Your task to perform on an android device: Go to eBay Image 0: 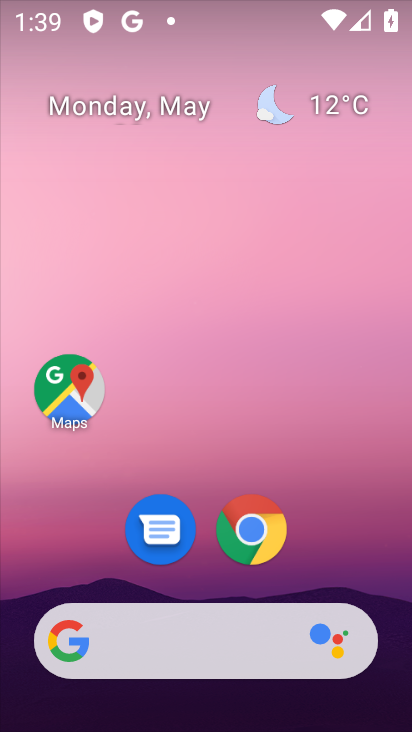
Step 0: click (251, 532)
Your task to perform on an android device: Go to eBay Image 1: 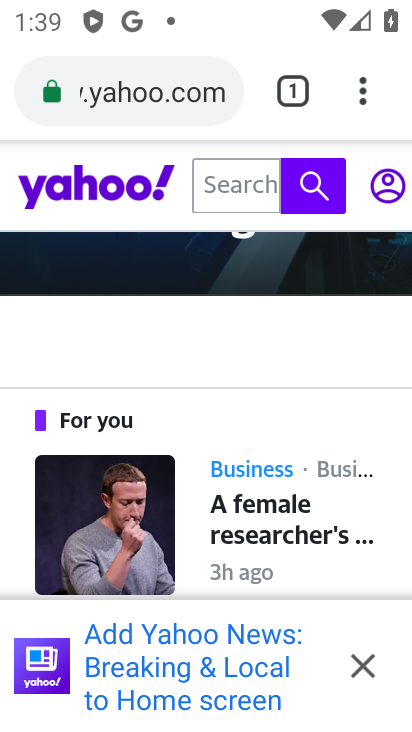
Step 1: click (228, 86)
Your task to perform on an android device: Go to eBay Image 2: 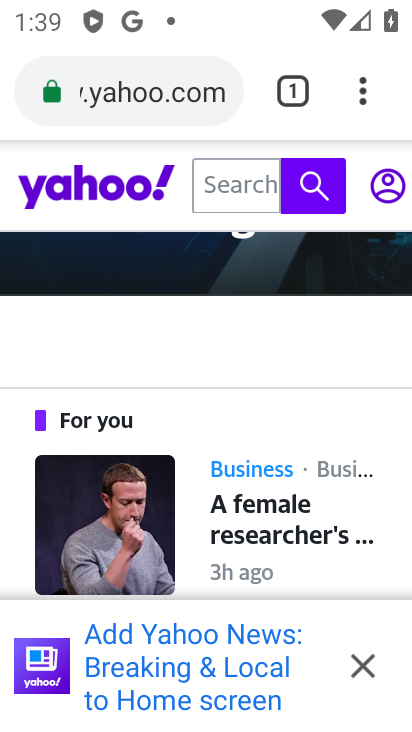
Step 2: click (228, 88)
Your task to perform on an android device: Go to eBay Image 3: 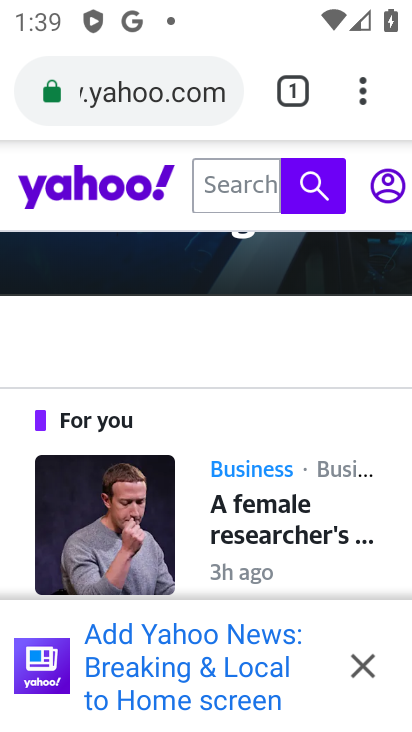
Step 3: click (217, 68)
Your task to perform on an android device: Go to eBay Image 4: 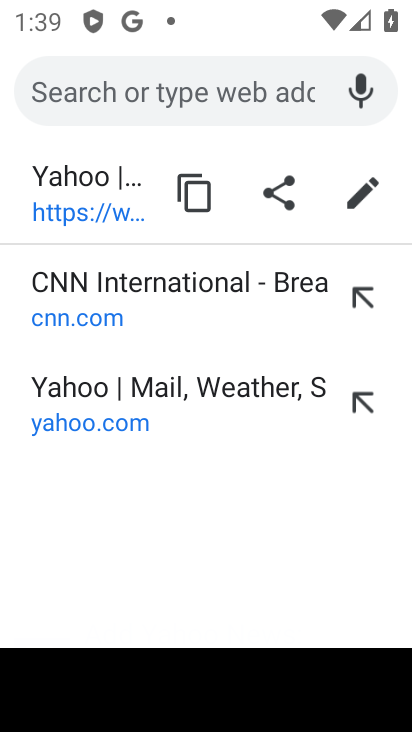
Step 4: type "ebay"
Your task to perform on an android device: Go to eBay Image 5: 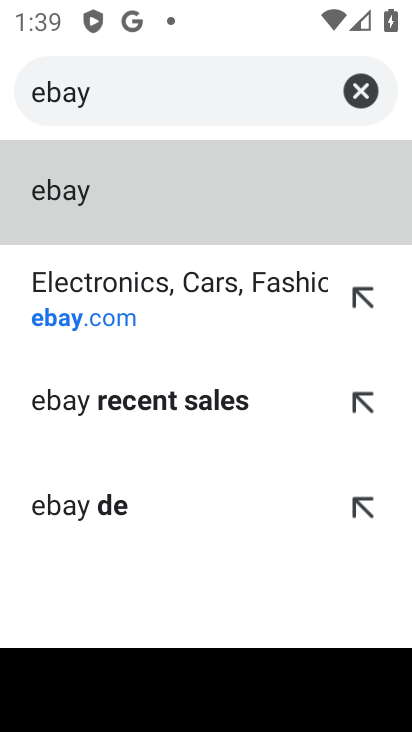
Step 5: click (67, 203)
Your task to perform on an android device: Go to eBay Image 6: 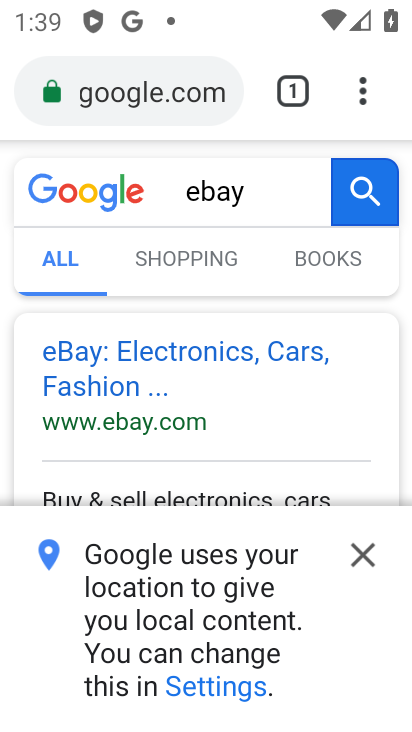
Step 6: click (83, 363)
Your task to perform on an android device: Go to eBay Image 7: 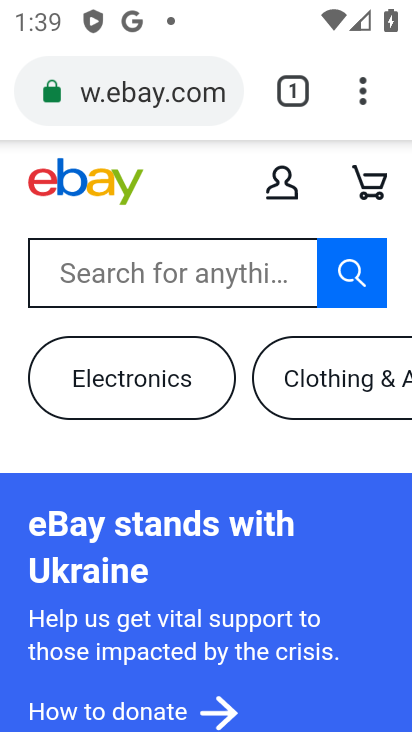
Step 7: task complete